Your task to perform on an android device: open app "Grab" (install if not already installed) Image 0: 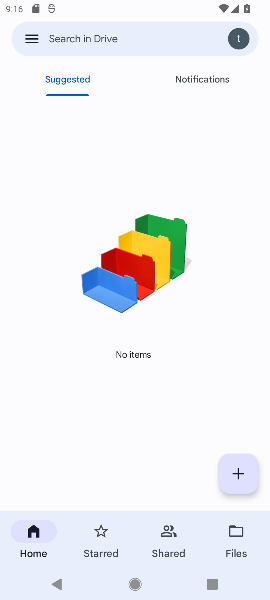
Step 0: press home button
Your task to perform on an android device: open app "Grab" (install if not already installed) Image 1: 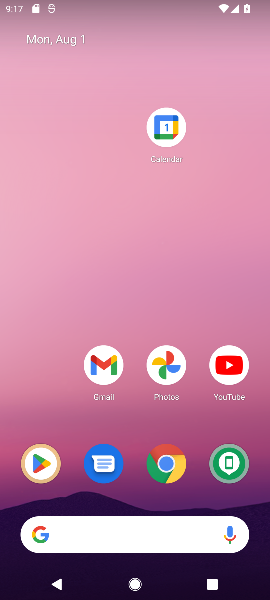
Step 1: click (50, 477)
Your task to perform on an android device: open app "Grab" (install if not already installed) Image 2: 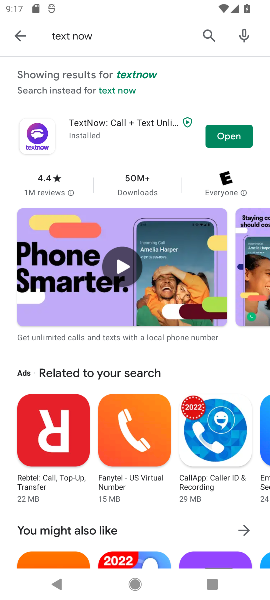
Step 2: click (216, 31)
Your task to perform on an android device: open app "Grab" (install if not already installed) Image 3: 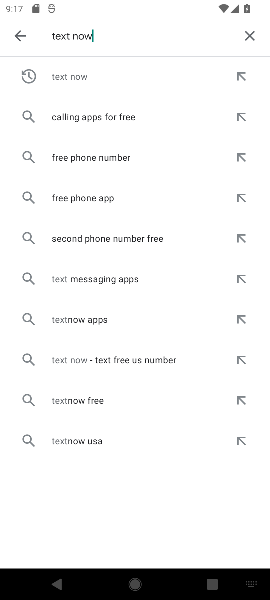
Step 3: click (248, 35)
Your task to perform on an android device: open app "Grab" (install if not already installed) Image 4: 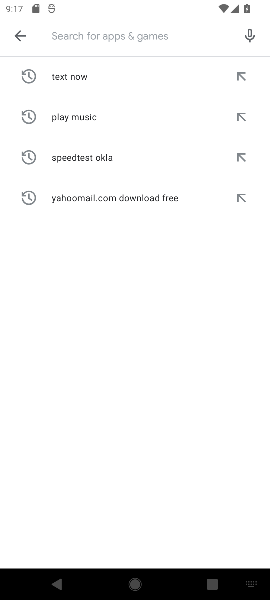
Step 4: type "grab"
Your task to perform on an android device: open app "Grab" (install if not already installed) Image 5: 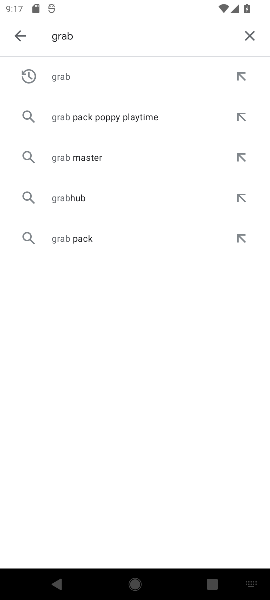
Step 5: click (132, 78)
Your task to perform on an android device: open app "Grab" (install if not already installed) Image 6: 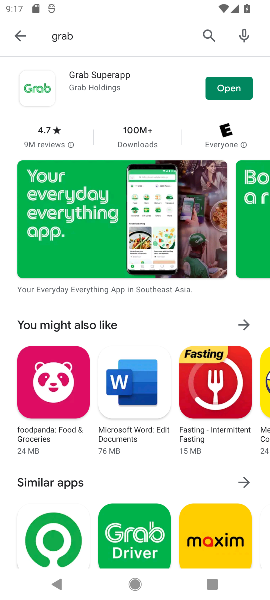
Step 6: click (224, 94)
Your task to perform on an android device: open app "Grab" (install if not already installed) Image 7: 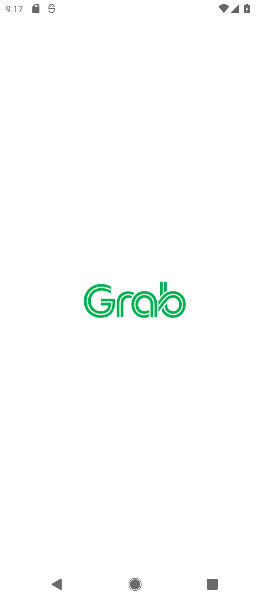
Step 7: task complete